Your task to perform on an android device: Search for Italian restaurants on Maps Image 0: 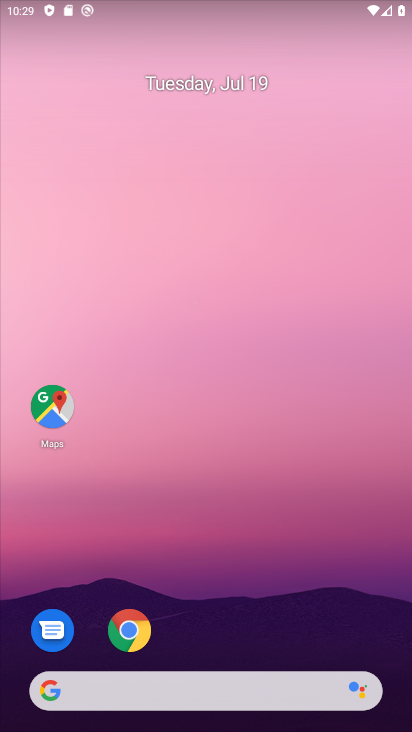
Step 0: drag from (15, 620) to (258, 128)
Your task to perform on an android device: Search for Italian restaurants on Maps Image 1: 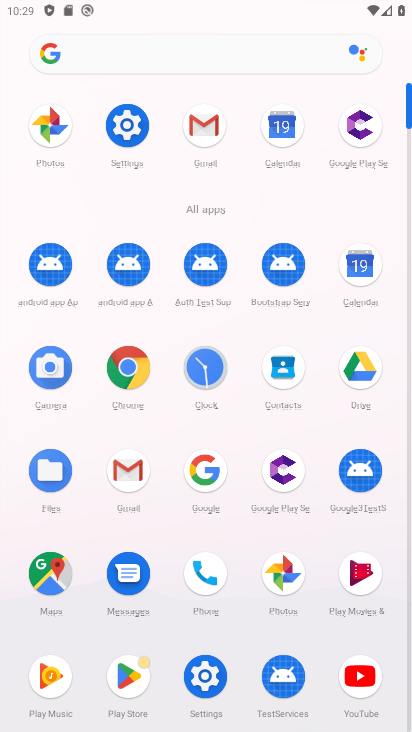
Step 1: click (39, 596)
Your task to perform on an android device: Search for Italian restaurants on Maps Image 2: 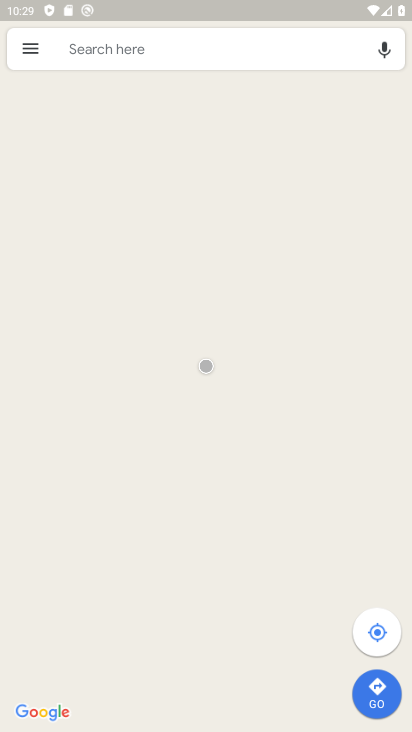
Step 2: click (132, 58)
Your task to perform on an android device: Search for Italian restaurants on Maps Image 3: 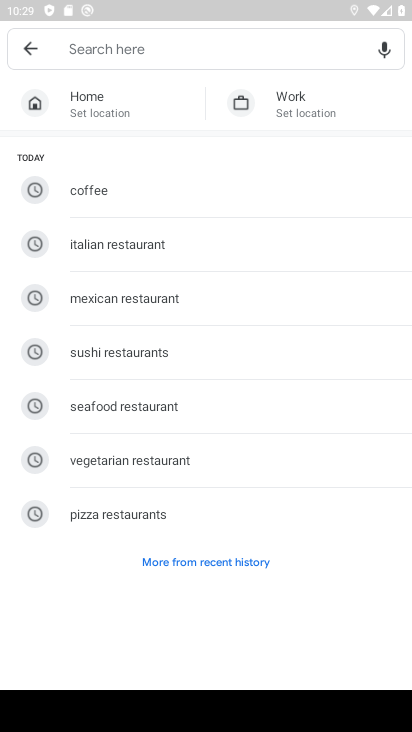
Step 3: type "Italian restaurants "
Your task to perform on an android device: Search for Italian restaurants on Maps Image 4: 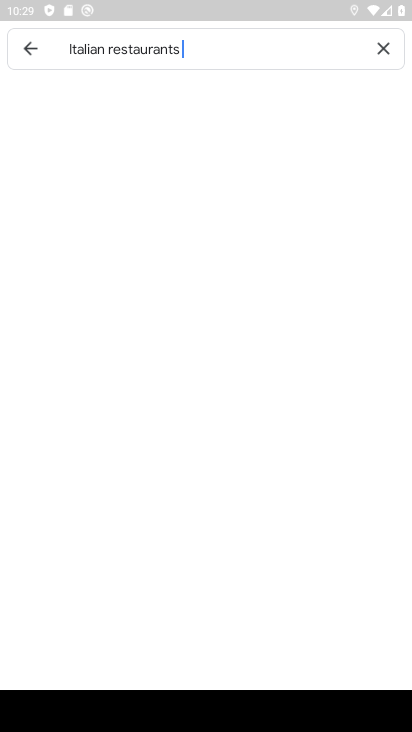
Step 4: type ""
Your task to perform on an android device: Search for Italian restaurants on Maps Image 5: 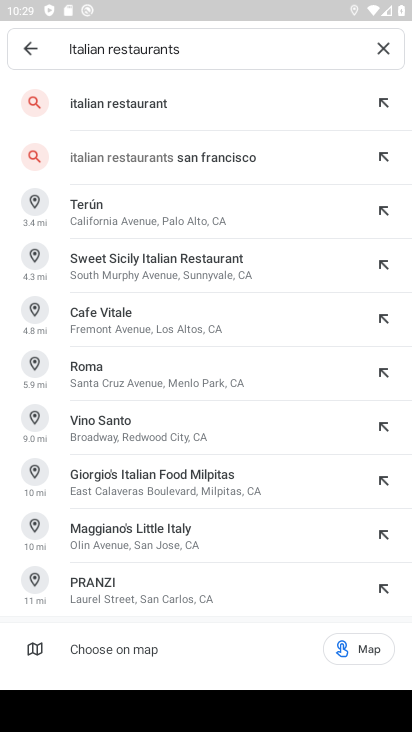
Step 5: click (150, 103)
Your task to perform on an android device: Search for Italian restaurants on Maps Image 6: 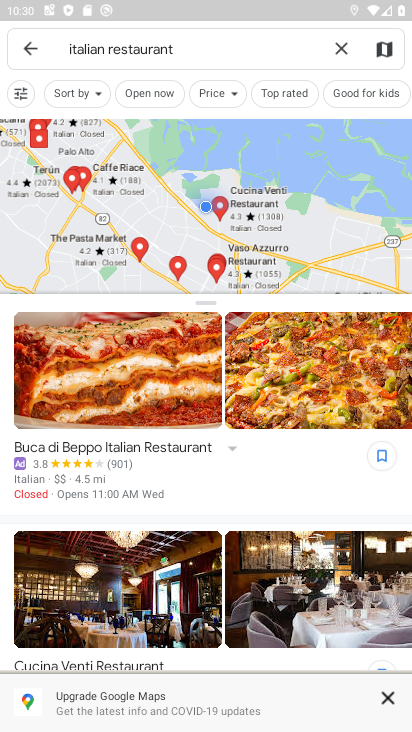
Step 6: task complete